Your task to perform on an android device: turn on the 12-hour format for clock Image 0: 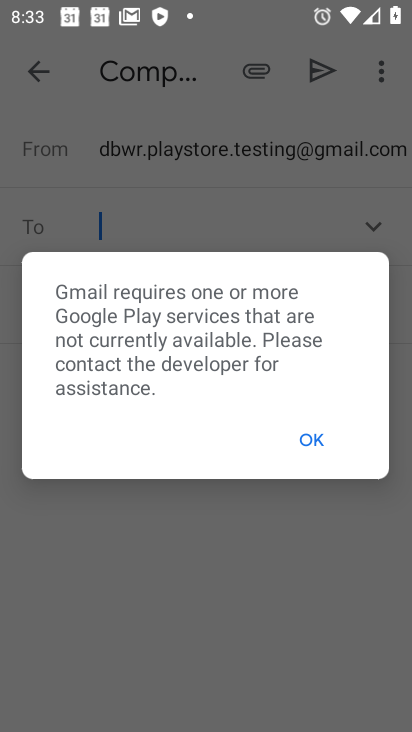
Step 0: click (301, 439)
Your task to perform on an android device: turn on the 12-hour format for clock Image 1: 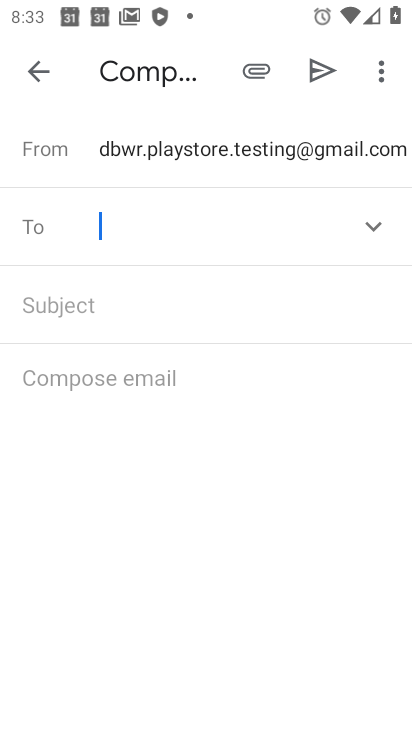
Step 1: press home button
Your task to perform on an android device: turn on the 12-hour format for clock Image 2: 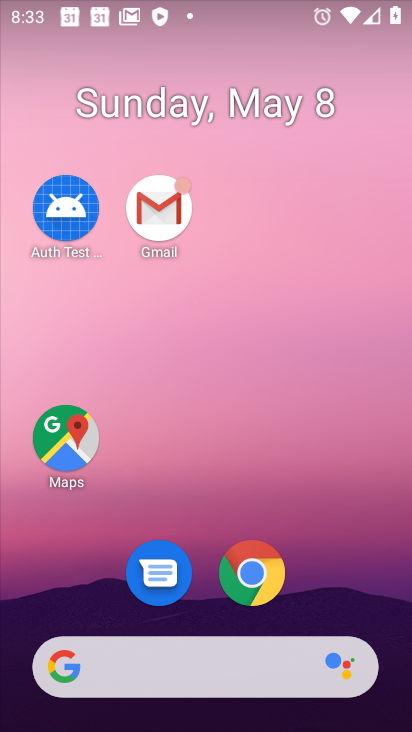
Step 2: drag from (337, 597) to (189, 21)
Your task to perform on an android device: turn on the 12-hour format for clock Image 3: 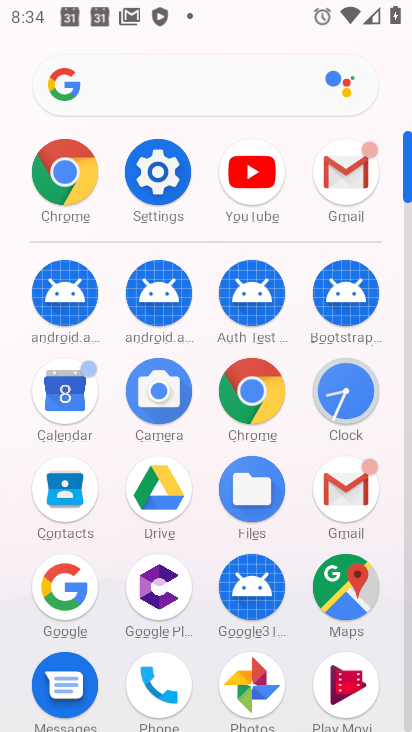
Step 3: click (343, 398)
Your task to perform on an android device: turn on the 12-hour format for clock Image 4: 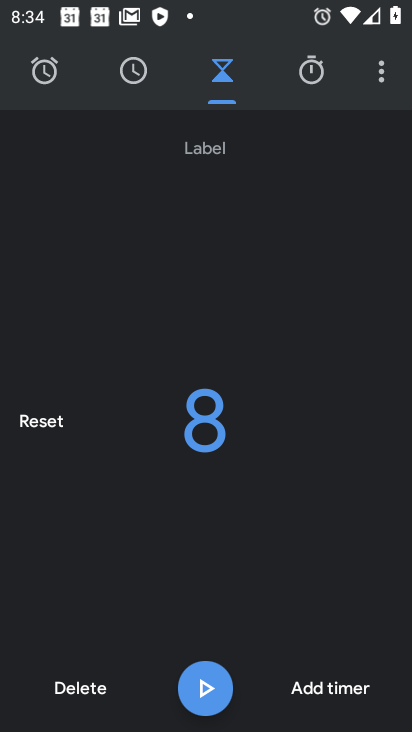
Step 4: click (382, 72)
Your task to perform on an android device: turn on the 12-hour format for clock Image 5: 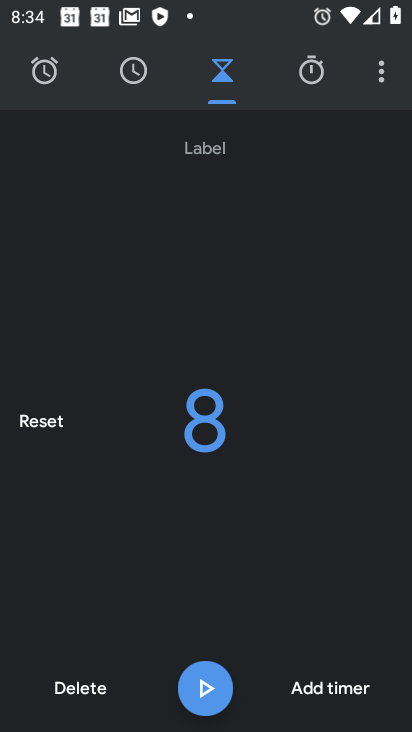
Step 5: click (382, 72)
Your task to perform on an android device: turn on the 12-hour format for clock Image 6: 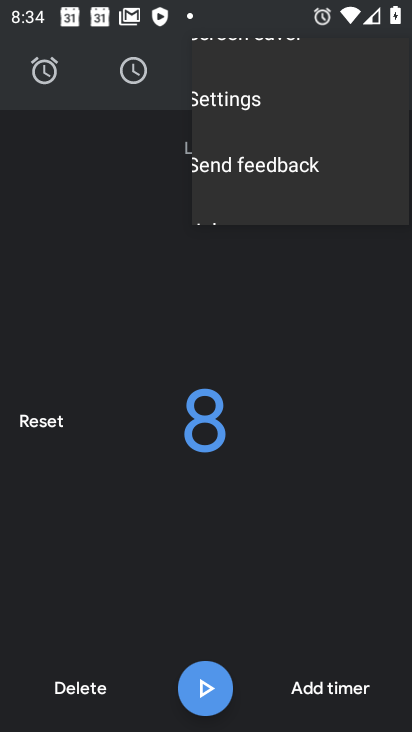
Step 6: click (382, 72)
Your task to perform on an android device: turn on the 12-hour format for clock Image 7: 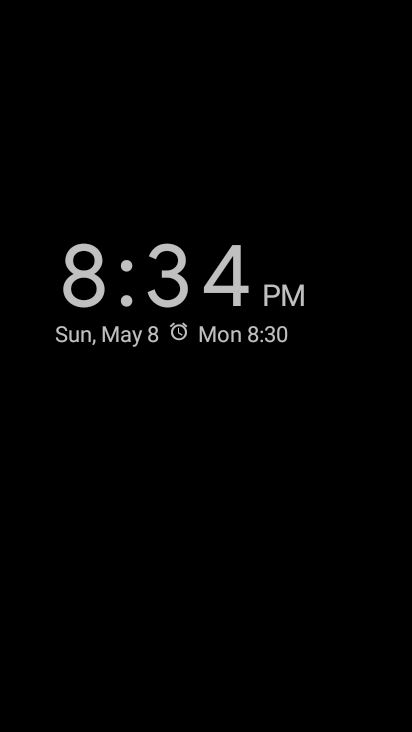
Step 7: press home button
Your task to perform on an android device: turn on the 12-hour format for clock Image 8: 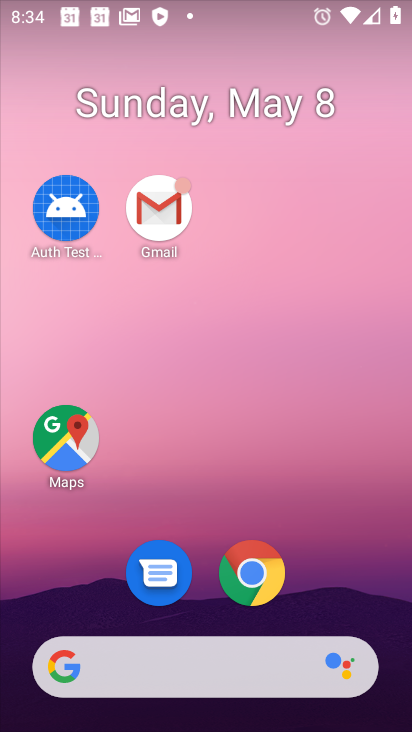
Step 8: drag from (217, 430) to (131, 220)
Your task to perform on an android device: turn on the 12-hour format for clock Image 9: 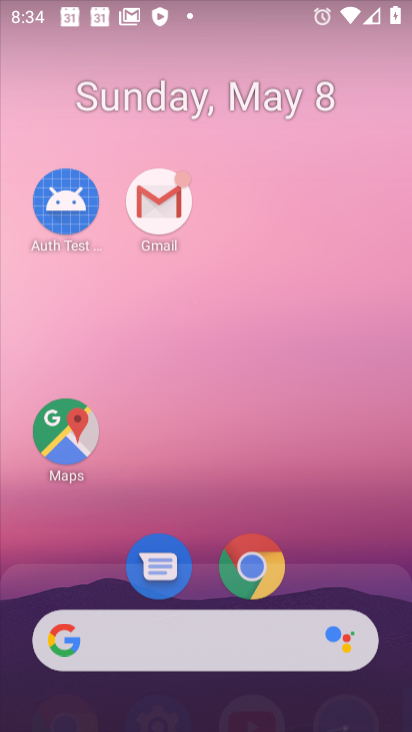
Step 9: drag from (325, 575) to (167, 159)
Your task to perform on an android device: turn on the 12-hour format for clock Image 10: 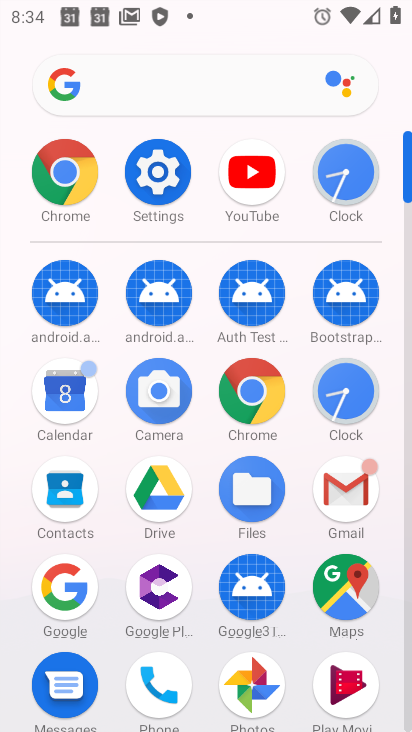
Step 10: click (342, 387)
Your task to perform on an android device: turn on the 12-hour format for clock Image 11: 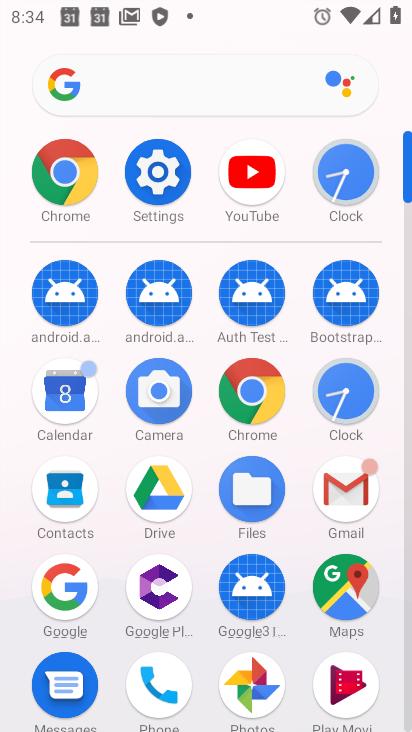
Step 11: click (342, 387)
Your task to perform on an android device: turn on the 12-hour format for clock Image 12: 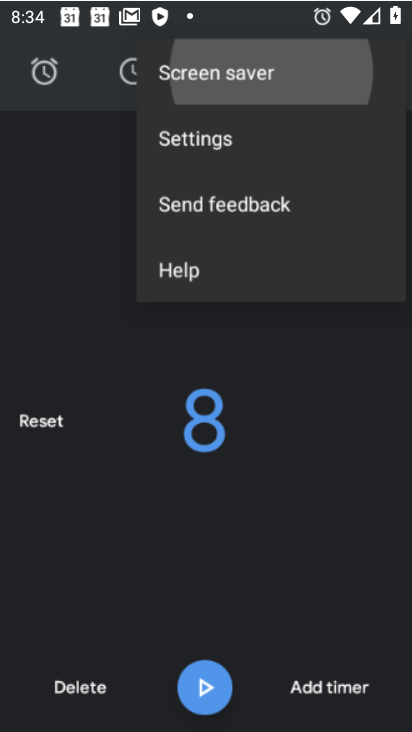
Step 12: click (343, 387)
Your task to perform on an android device: turn on the 12-hour format for clock Image 13: 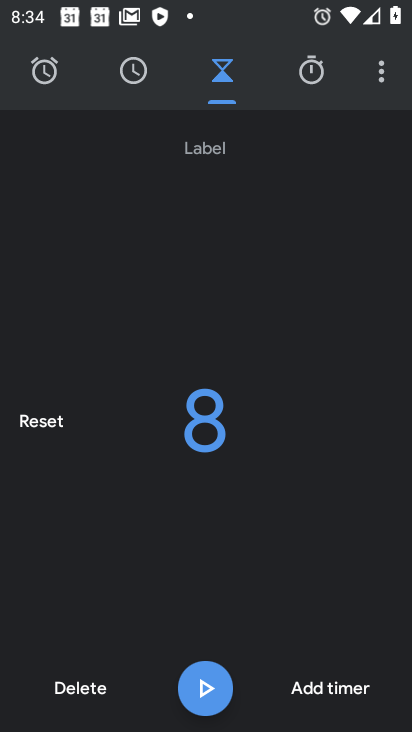
Step 13: click (379, 65)
Your task to perform on an android device: turn on the 12-hour format for clock Image 14: 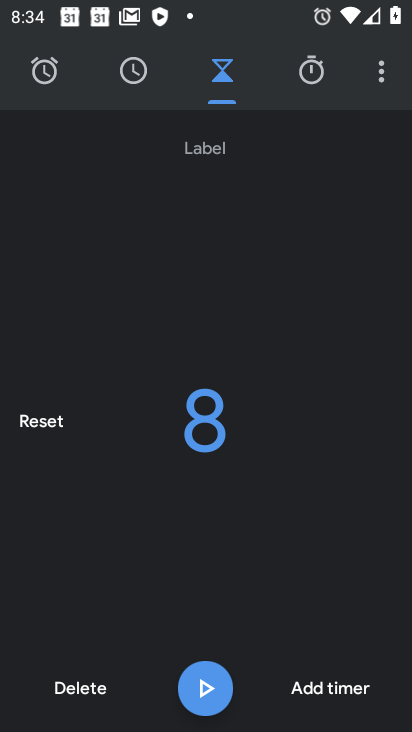
Step 14: click (378, 76)
Your task to perform on an android device: turn on the 12-hour format for clock Image 15: 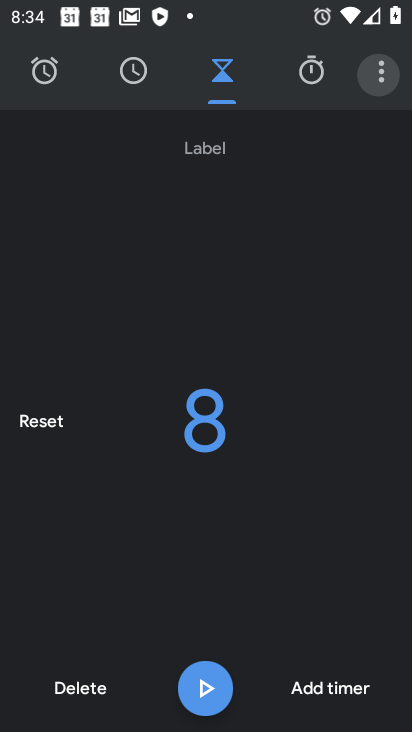
Step 15: click (371, 75)
Your task to perform on an android device: turn on the 12-hour format for clock Image 16: 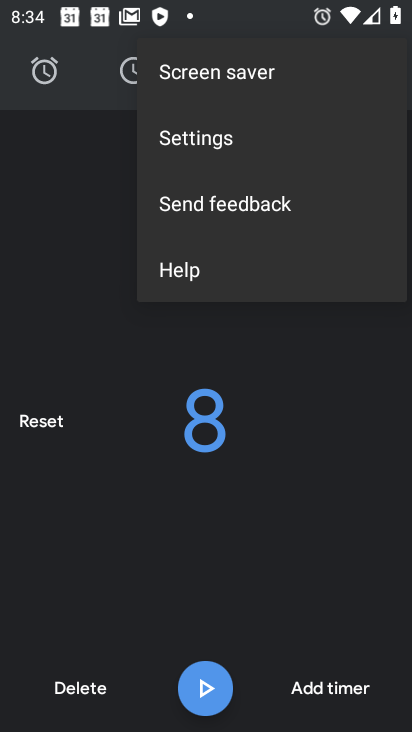
Step 16: click (188, 133)
Your task to perform on an android device: turn on the 12-hour format for clock Image 17: 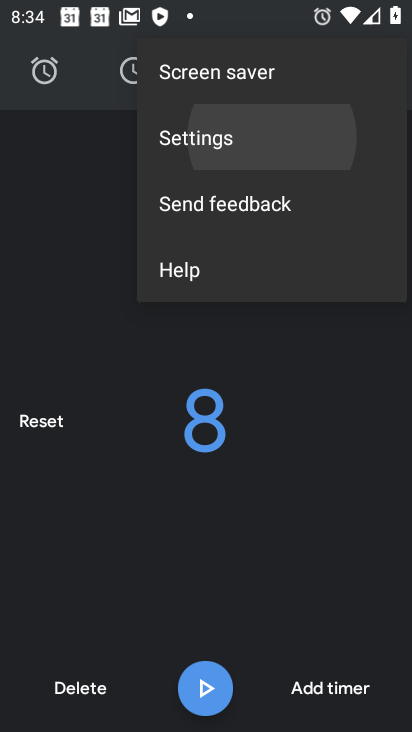
Step 17: click (188, 133)
Your task to perform on an android device: turn on the 12-hour format for clock Image 18: 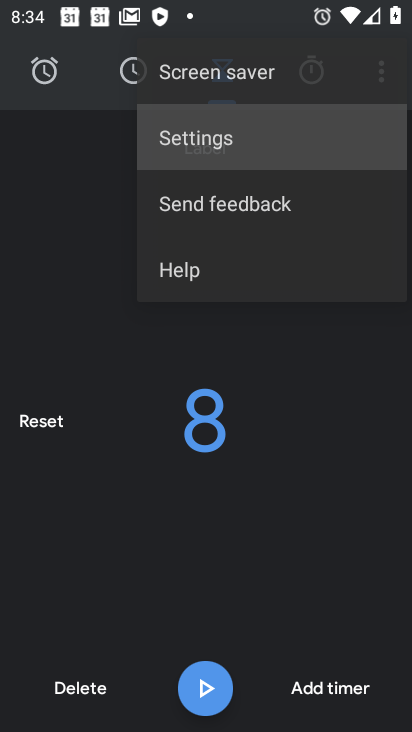
Step 18: click (188, 133)
Your task to perform on an android device: turn on the 12-hour format for clock Image 19: 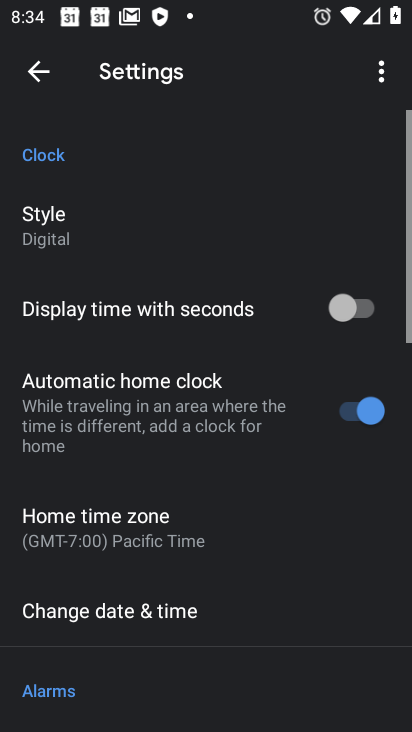
Step 19: click (188, 133)
Your task to perform on an android device: turn on the 12-hour format for clock Image 20: 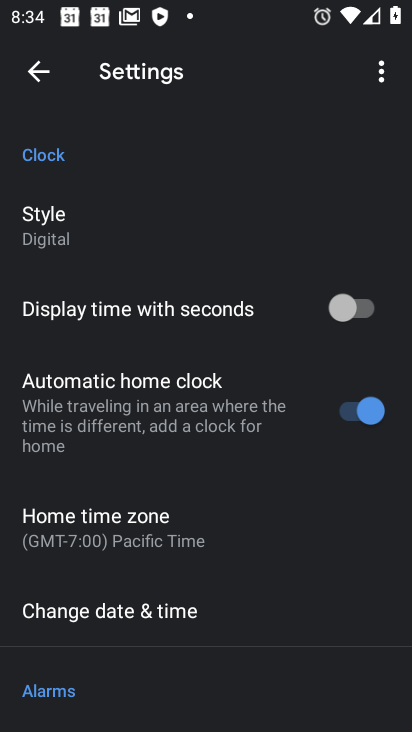
Step 20: click (123, 599)
Your task to perform on an android device: turn on the 12-hour format for clock Image 21: 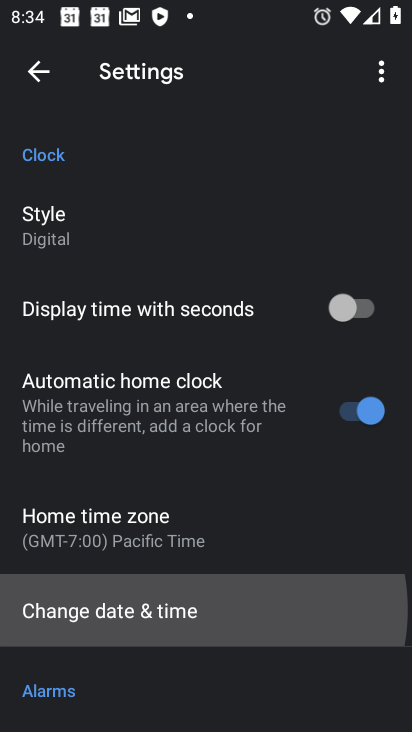
Step 21: click (125, 608)
Your task to perform on an android device: turn on the 12-hour format for clock Image 22: 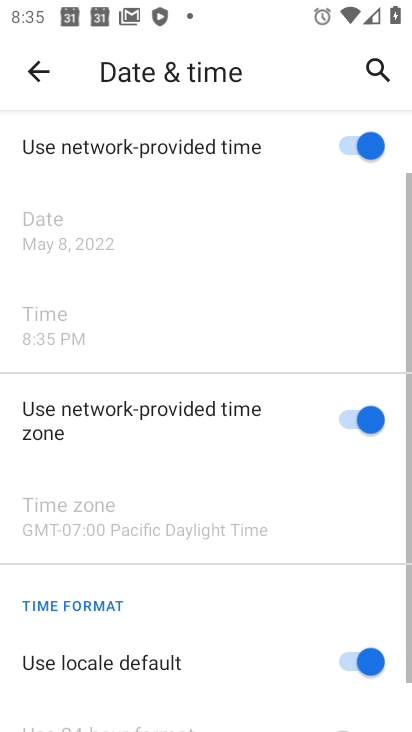
Step 22: task complete